Your task to perform on an android device: Search for vegetarian restaurants on Maps Image 0: 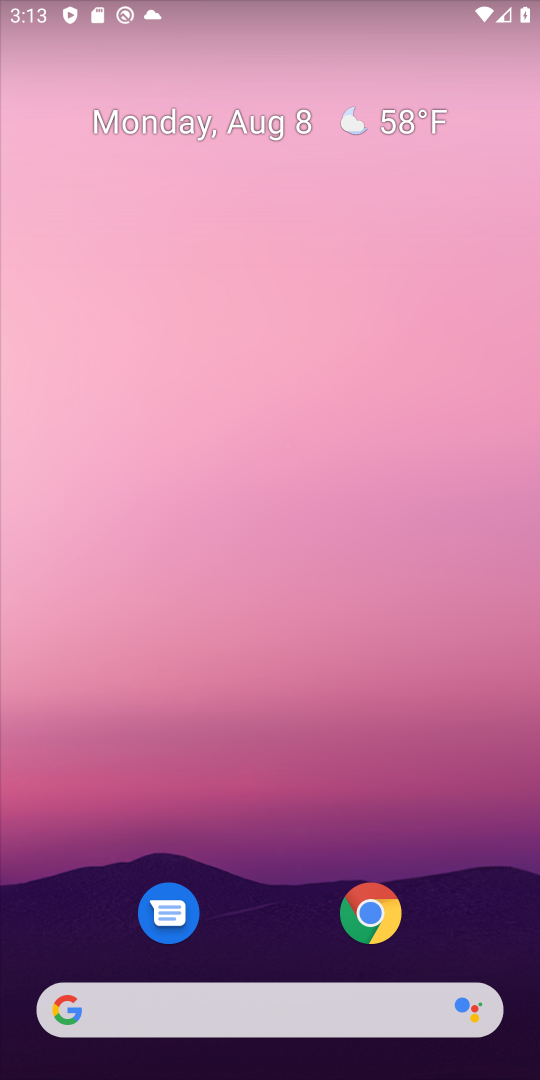
Step 0: drag from (452, 839) to (486, 309)
Your task to perform on an android device: Search for vegetarian restaurants on Maps Image 1: 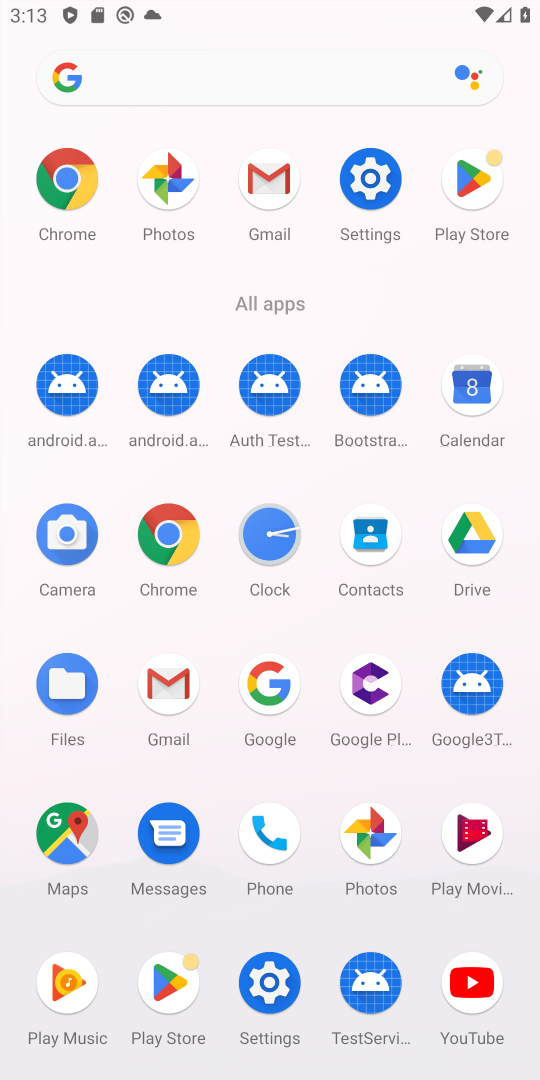
Step 1: click (64, 837)
Your task to perform on an android device: Search for vegetarian restaurants on Maps Image 2: 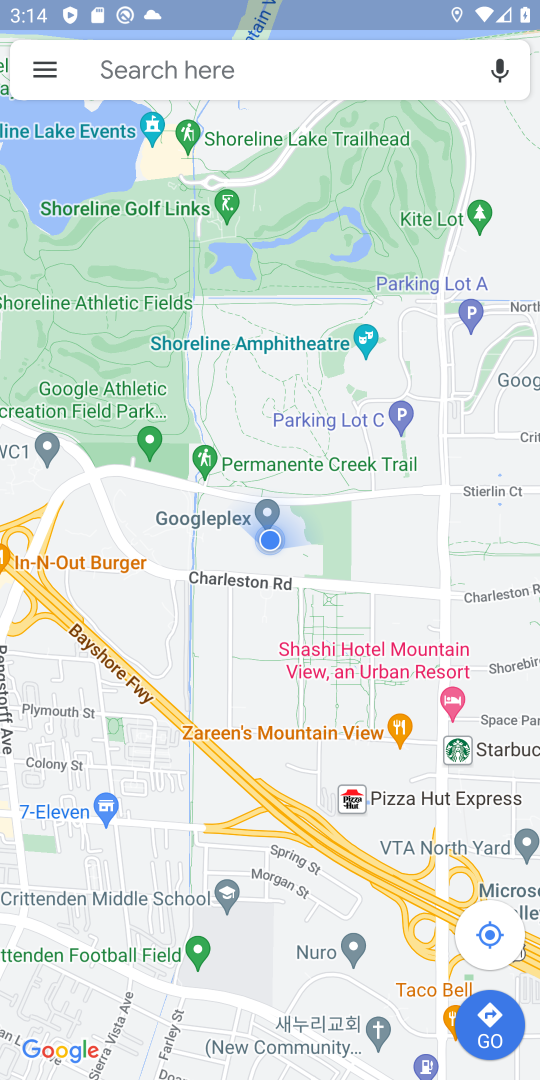
Step 2: click (289, 62)
Your task to perform on an android device: Search for vegetarian restaurants on Maps Image 3: 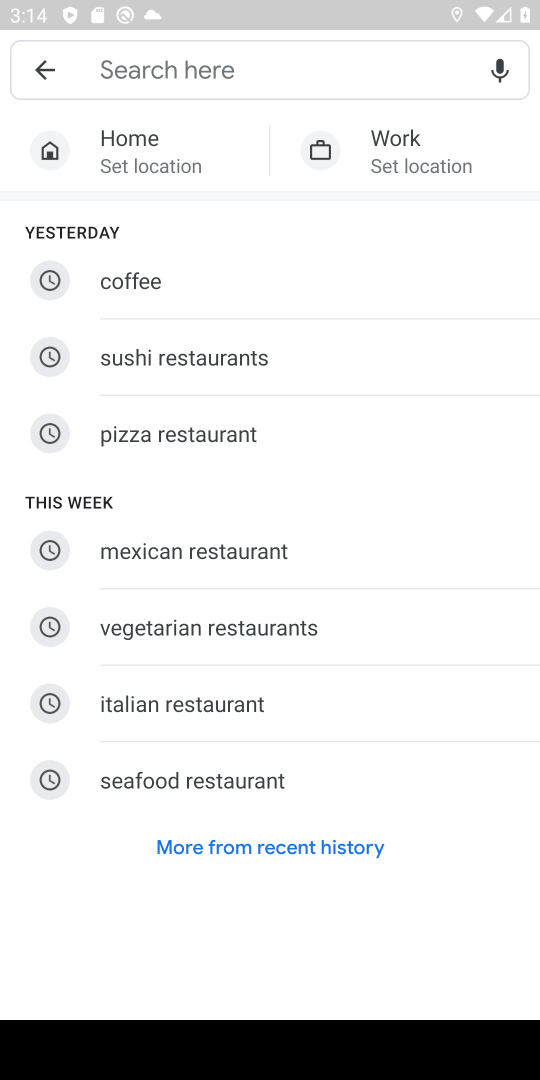
Step 3: type "vegetrain restaurants"
Your task to perform on an android device: Search for vegetarian restaurants on Maps Image 4: 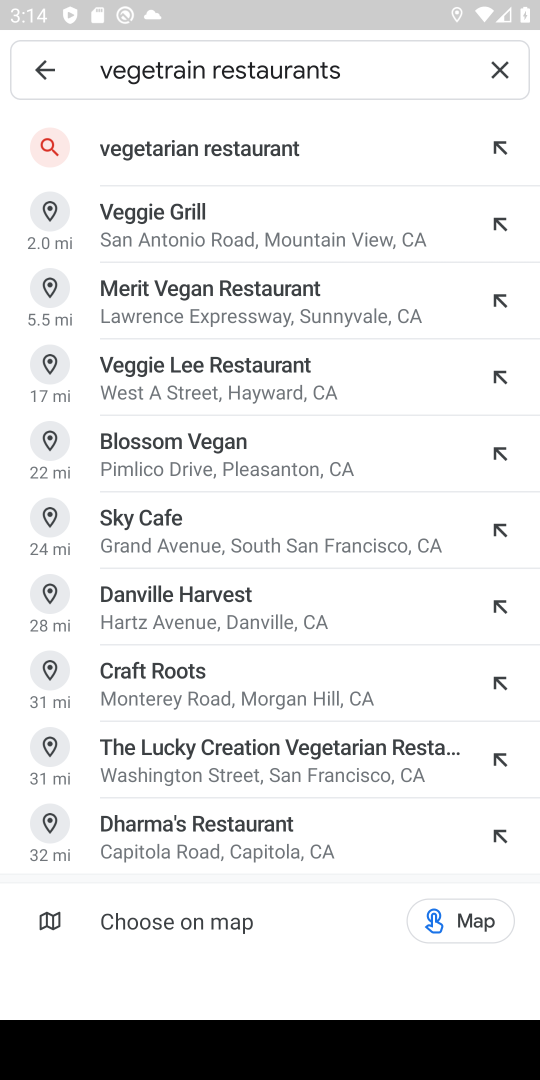
Step 4: click (343, 139)
Your task to perform on an android device: Search for vegetarian restaurants on Maps Image 5: 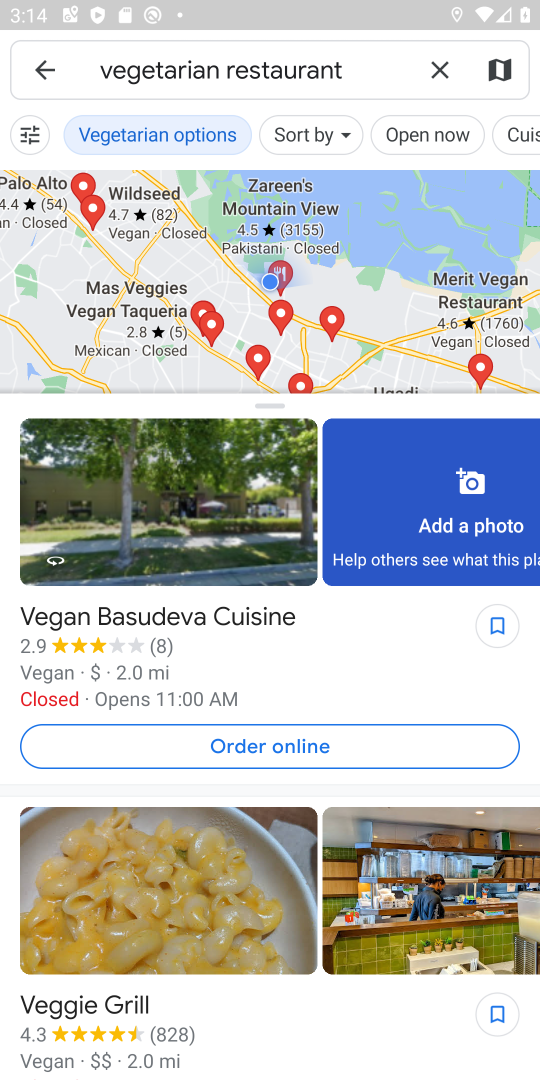
Step 5: task complete